Your task to perform on an android device: open app "Google Play services" (install if not already installed) Image 0: 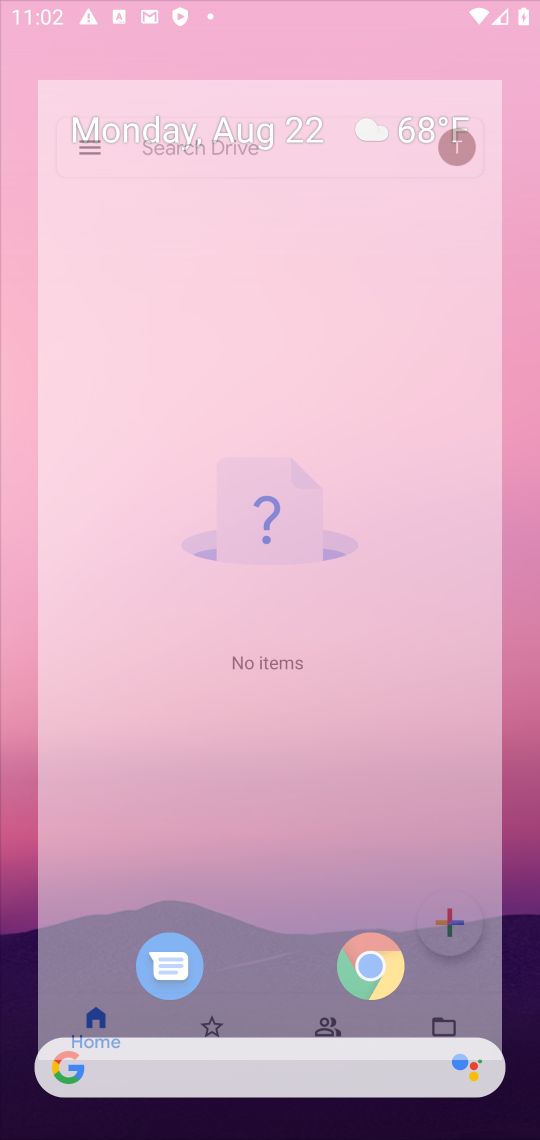
Step 0: press home button
Your task to perform on an android device: open app "Google Play services" (install if not already installed) Image 1: 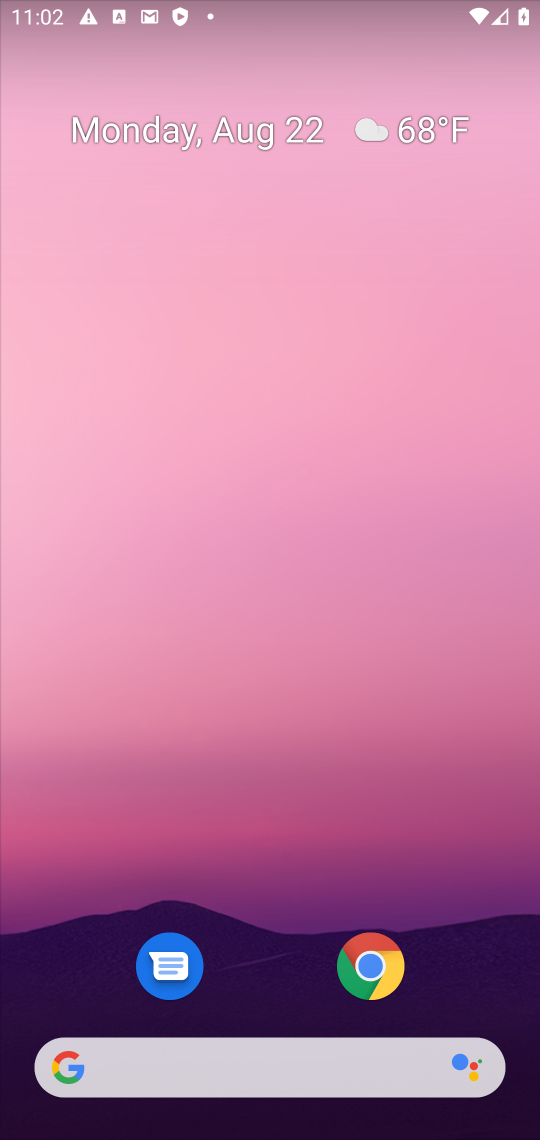
Step 1: drag from (490, 980) to (444, 127)
Your task to perform on an android device: open app "Google Play services" (install if not already installed) Image 2: 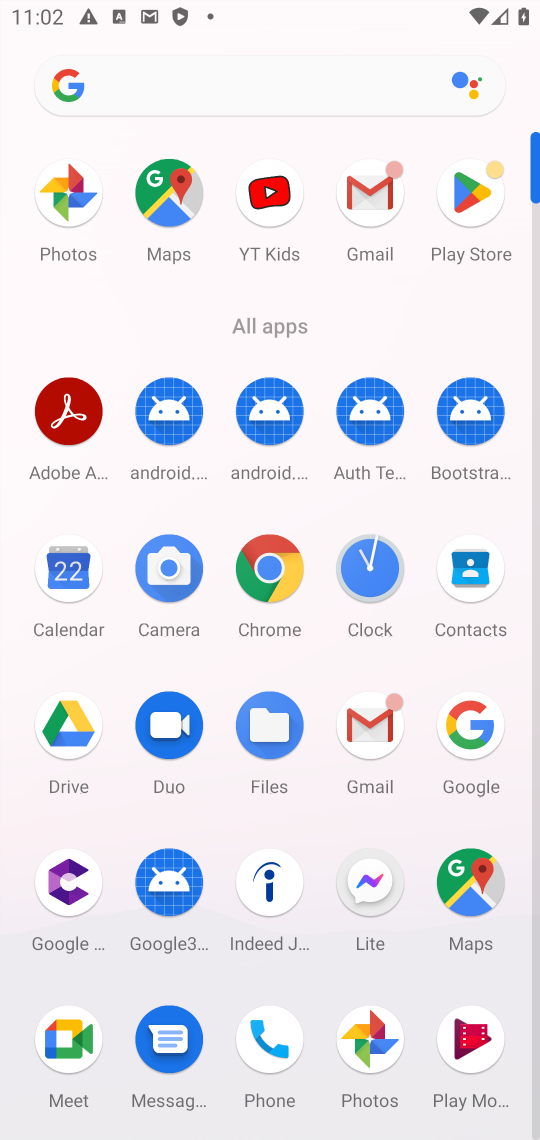
Step 2: click (483, 184)
Your task to perform on an android device: open app "Google Play services" (install if not already installed) Image 3: 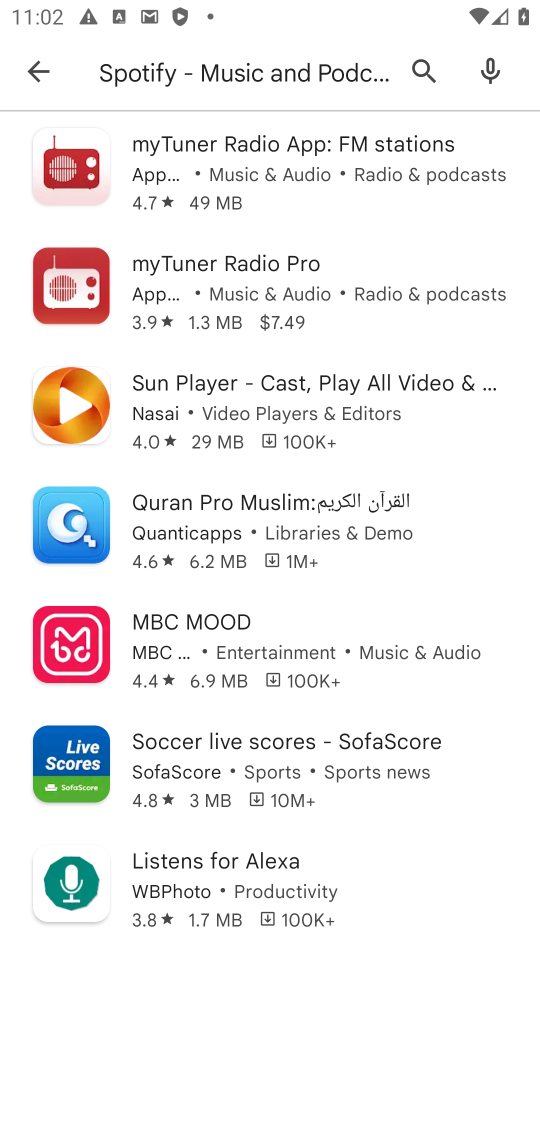
Step 3: press back button
Your task to perform on an android device: open app "Google Play services" (install if not already installed) Image 4: 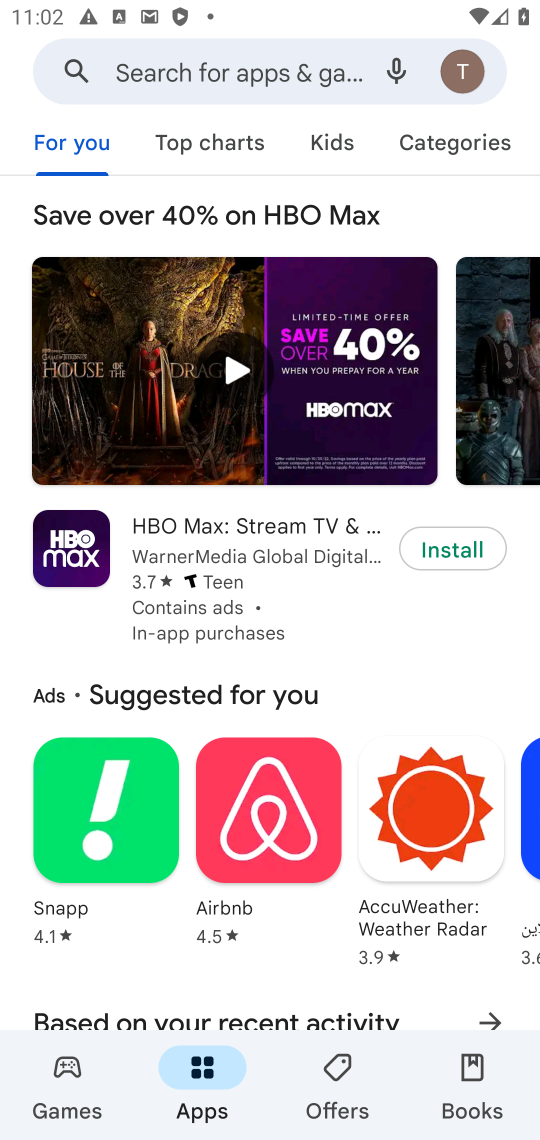
Step 4: click (176, 60)
Your task to perform on an android device: open app "Google Play services" (install if not already installed) Image 5: 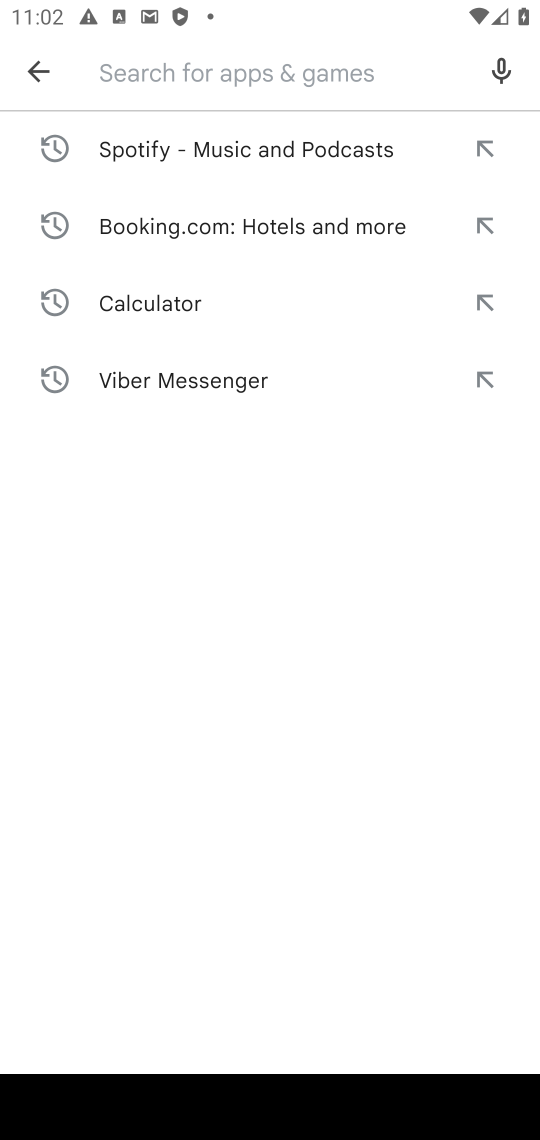
Step 5: press enter
Your task to perform on an android device: open app "Google Play services" (install if not already installed) Image 6: 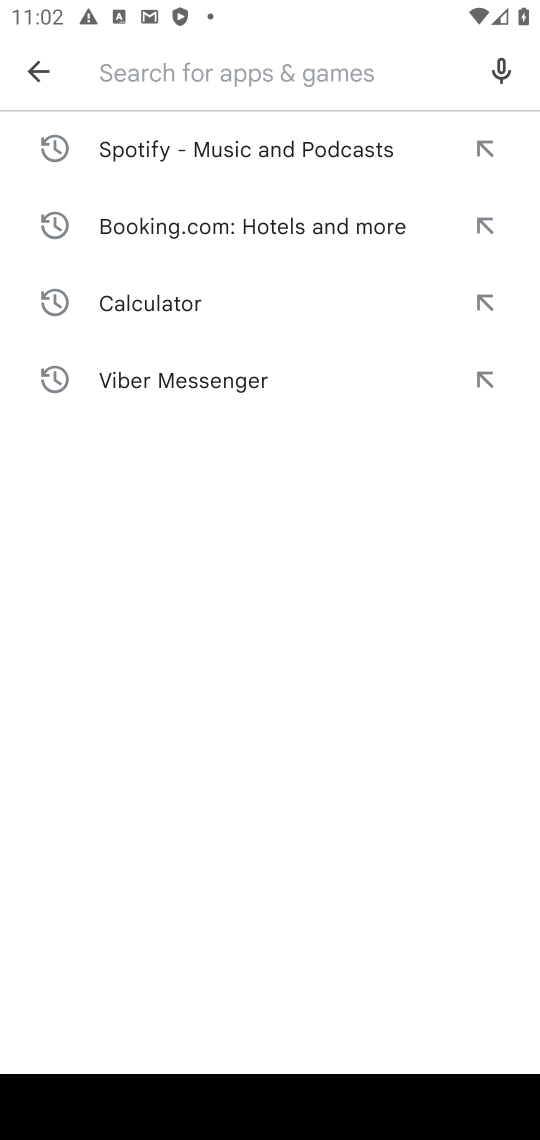
Step 6: type "Google Play services"
Your task to perform on an android device: open app "Google Play services" (install if not already installed) Image 7: 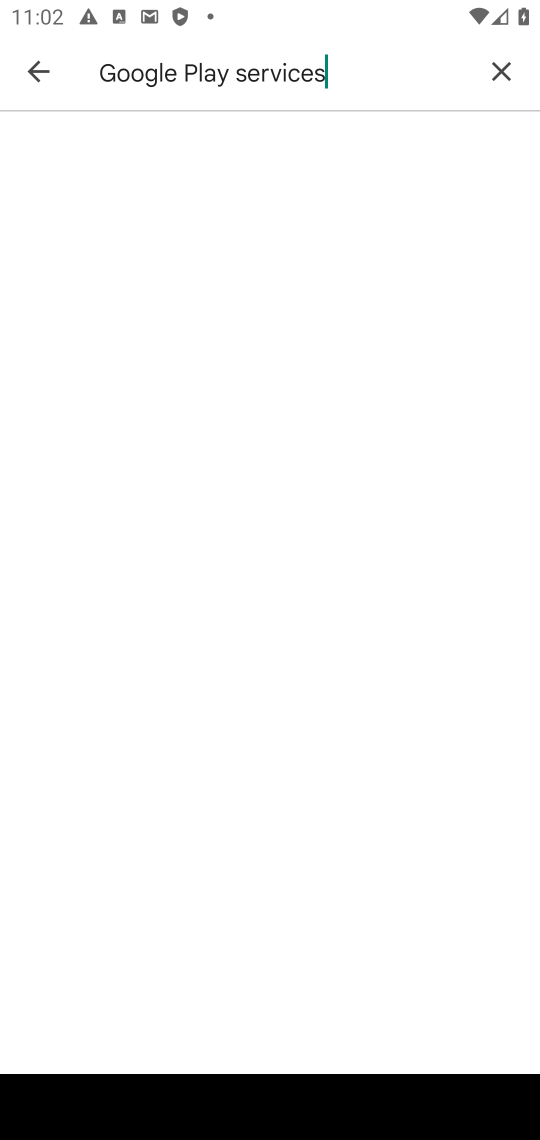
Step 7: task complete